Your task to perform on an android device: delete the emails in spam in the gmail app Image 0: 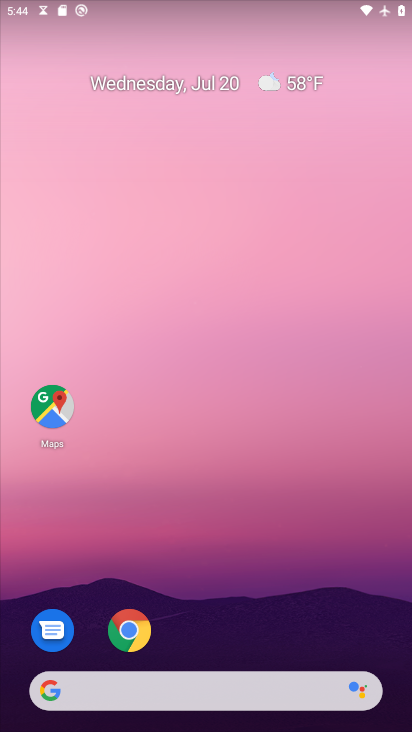
Step 0: press home button
Your task to perform on an android device: delete the emails in spam in the gmail app Image 1: 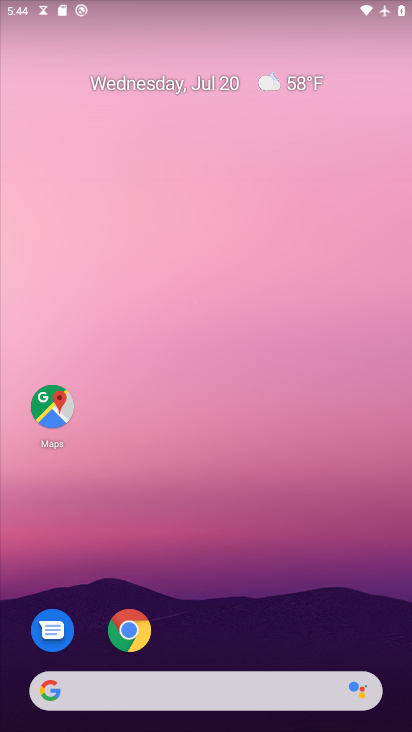
Step 1: drag from (183, 664) to (157, 173)
Your task to perform on an android device: delete the emails in spam in the gmail app Image 2: 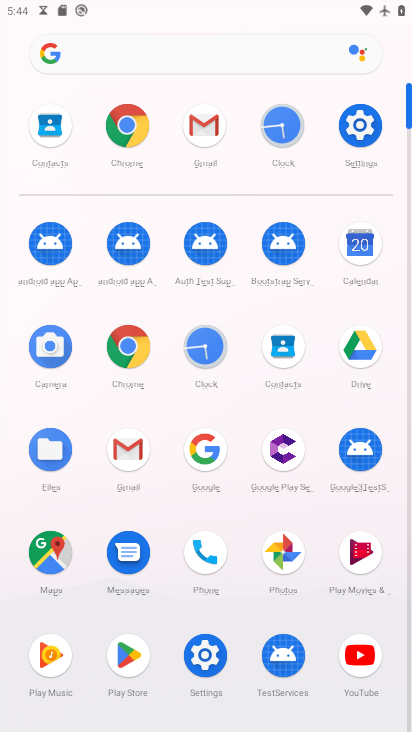
Step 2: click (206, 124)
Your task to perform on an android device: delete the emails in spam in the gmail app Image 3: 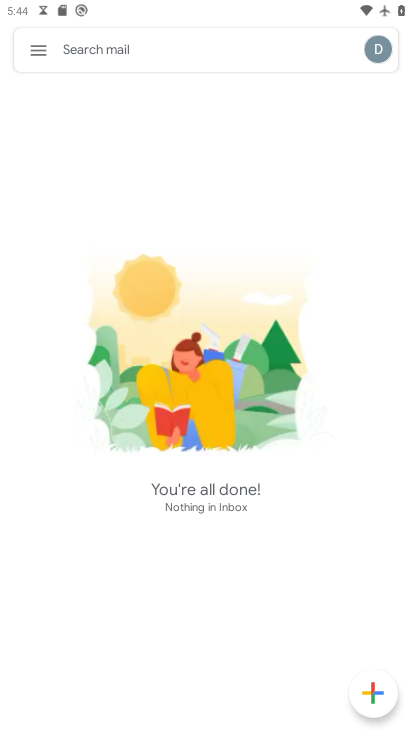
Step 3: click (29, 47)
Your task to perform on an android device: delete the emails in spam in the gmail app Image 4: 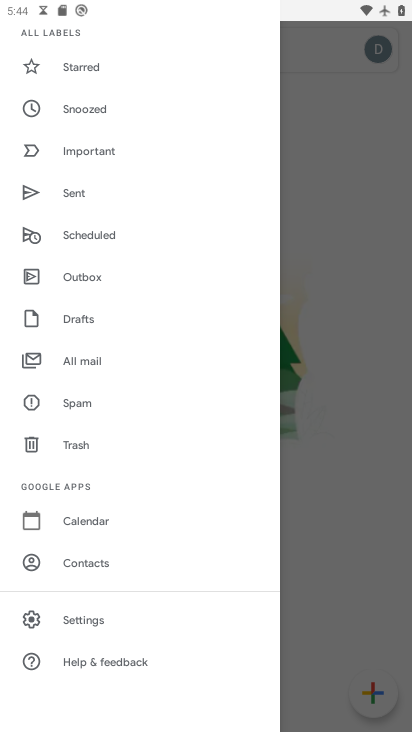
Step 4: click (65, 395)
Your task to perform on an android device: delete the emails in spam in the gmail app Image 5: 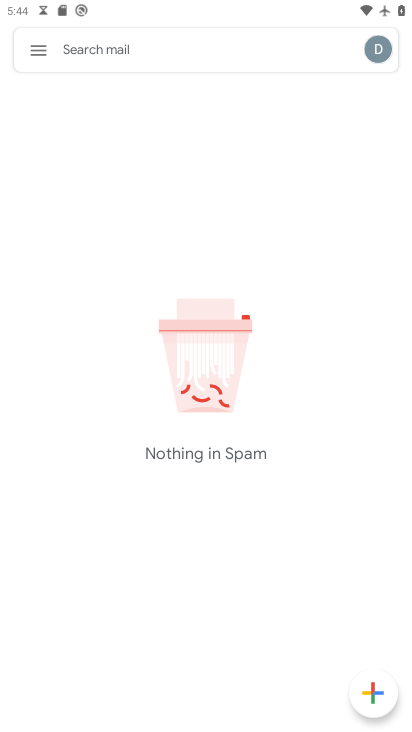
Step 5: task complete